Your task to perform on an android device: Go to privacy settings Image 0: 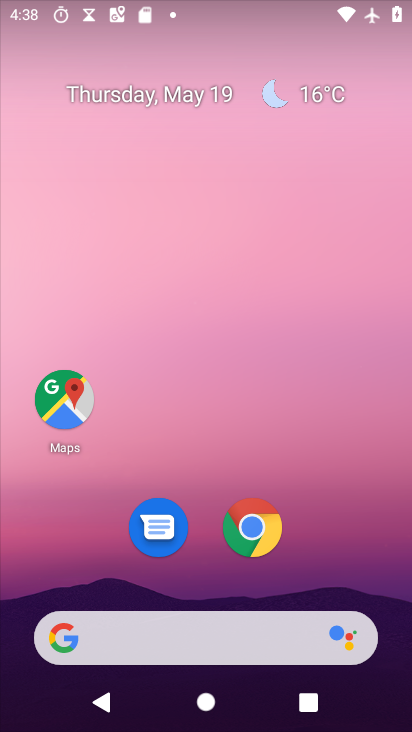
Step 0: drag from (304, 289) to (242, 35)
Your task to perform on an android device: Go to privacy settings Image 1: 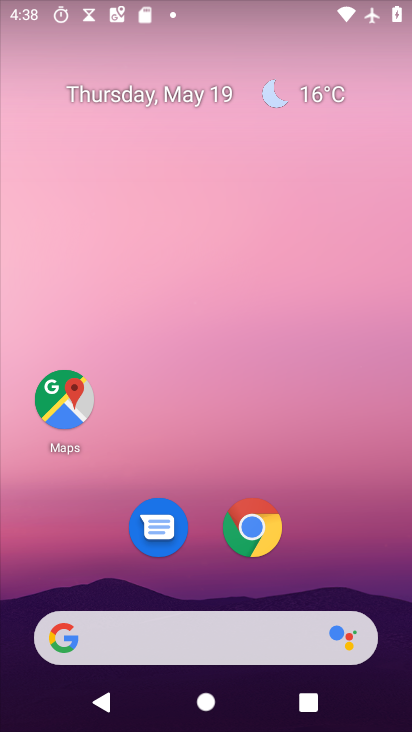
Step 1: drag from (329, 401) to (207, 2)
Your task to perform on an android device: Go to privacy settings Image 2: 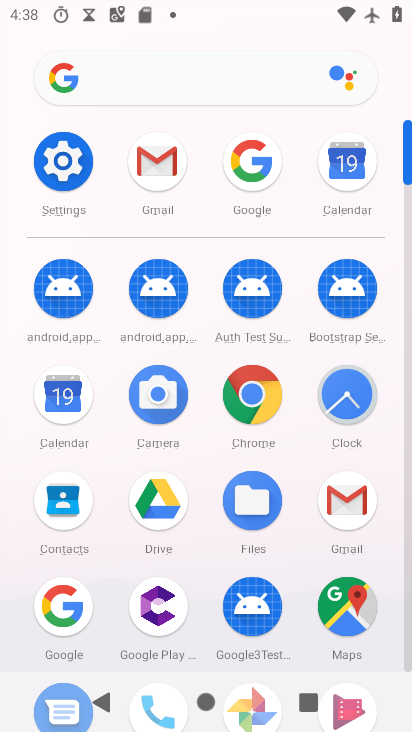
Step 2: click (67, 153)
Your task to perform on an android device: Go to privacy settings Image 3: 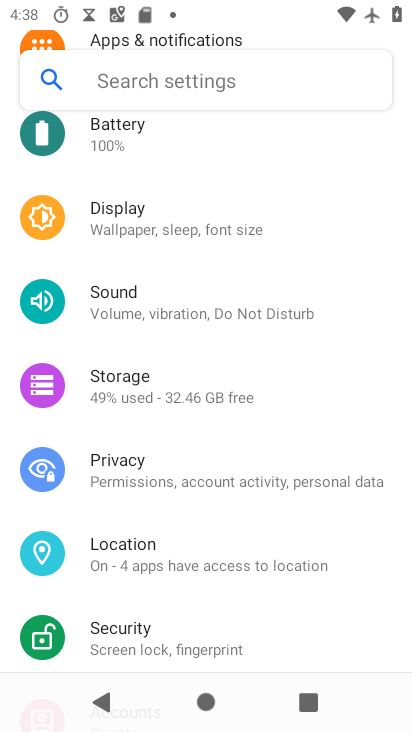
Step 3: click (224, 471)
Your task to perform on an android device: Go to privacy settings Image 4: 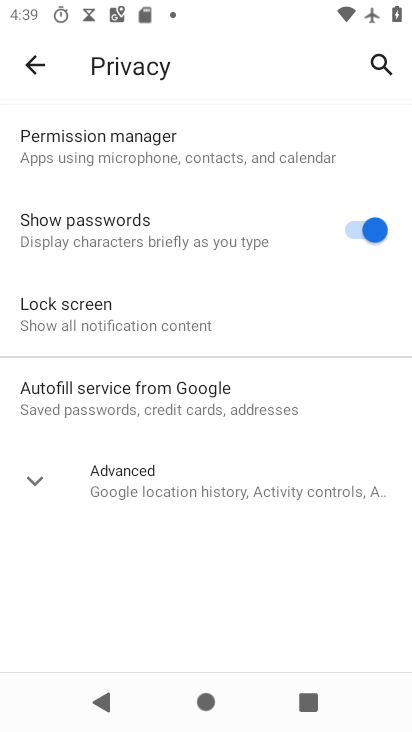
Step 4: task complete